Your task to perform on an android device: turn on improve location accuracy Image 0: 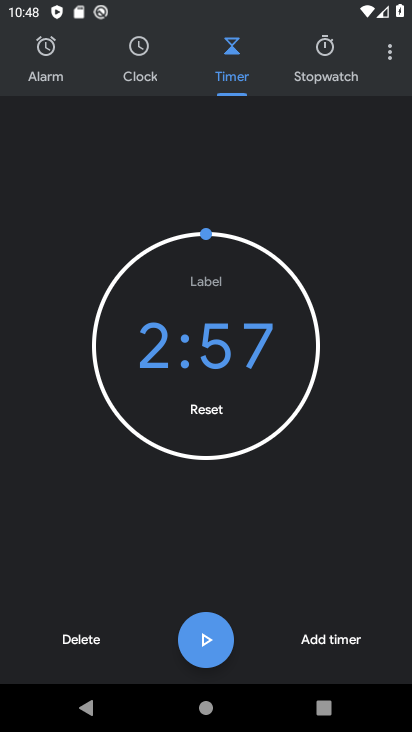
Step 0: press home button
Your task to perform on an android device: turn on improve location accuracy Image 1: 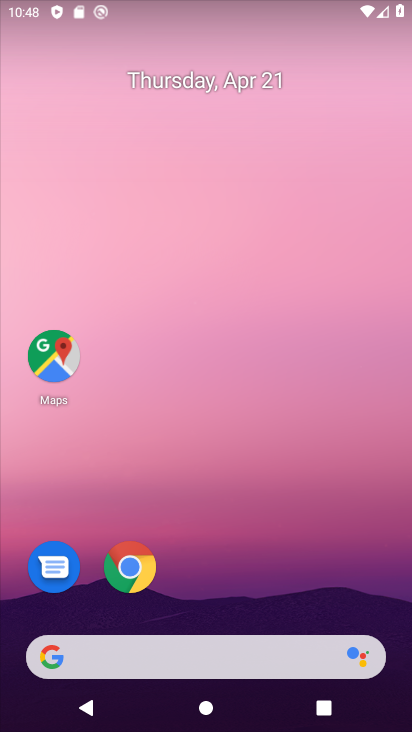
Step 1: click (248, 622)
Your task to perform on an android device: turn on improve location accuracy Image 2: 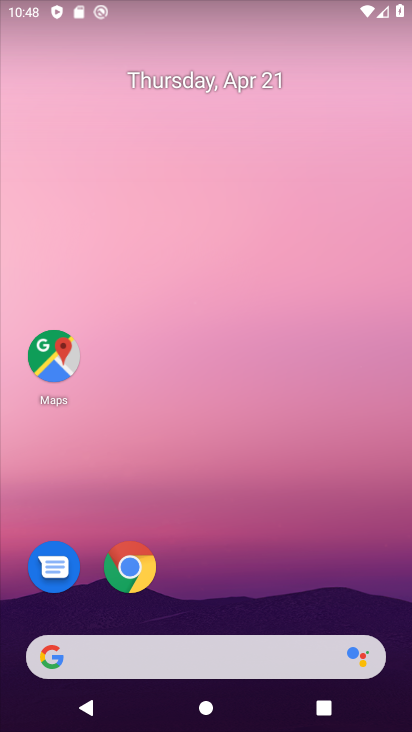
Step 2: drag from (229, 604) to (296, 168)
Your task to perform on an android device: turn on improve location accuracy Image 3: 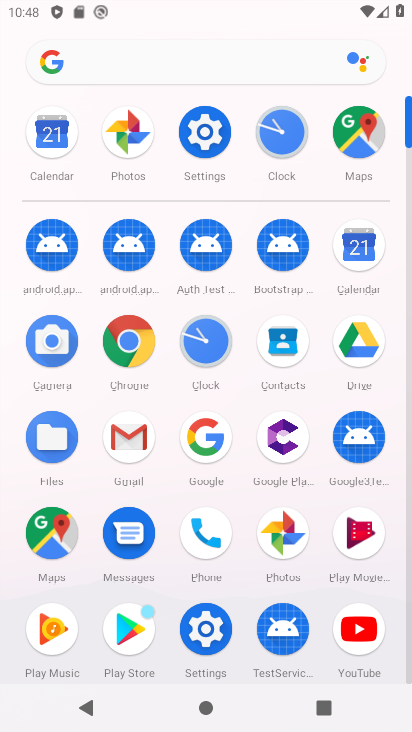
Step 3: click (204, 159)
Your task to perform on an android device: turn on improve location accuracy Image 4: 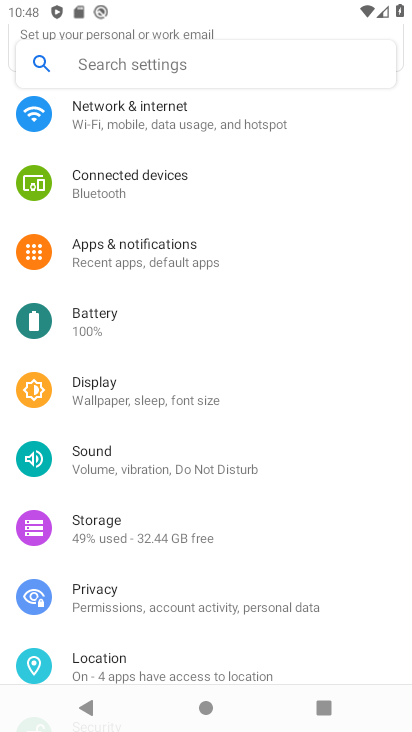
Step 4: drag from (182, 583) to (225, 297)
Your task to perform on an android device: turn on improve location accuracy Image 5: 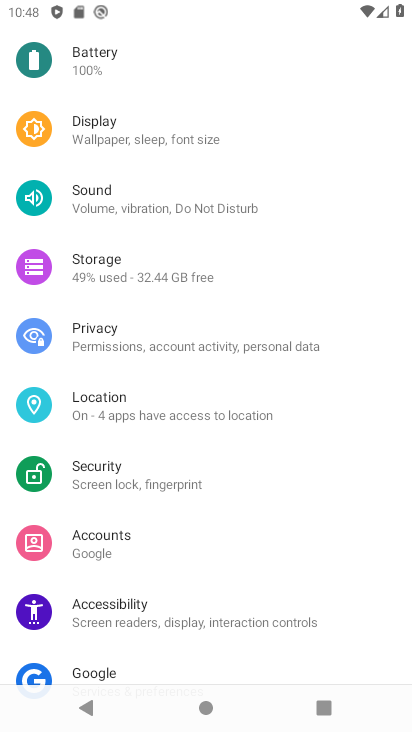
Step 5: click (139, 415)
Your task to perform on an android device: turn on improve location accuracy Image 6: 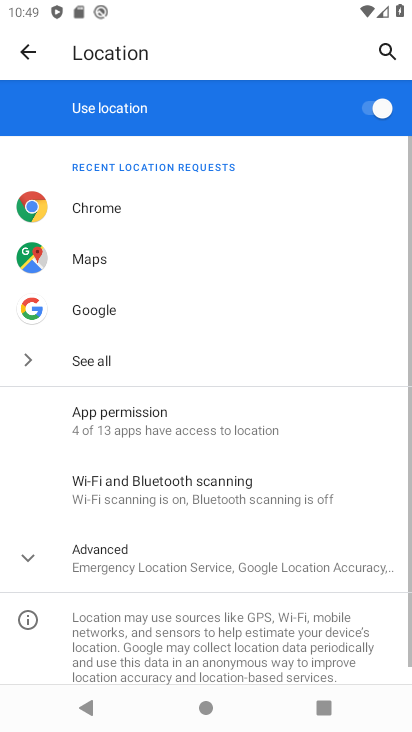
Step 6: click (146, 566)
Your task to perform on an android device: turn on improve location accuracy Image 7: 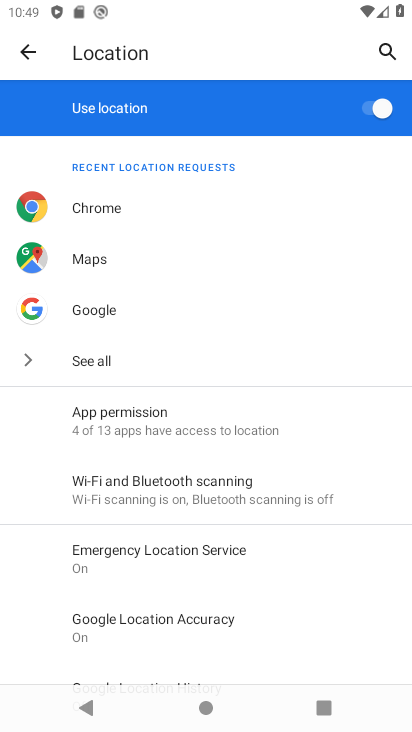
Step 7: click (139, 624)
Your task to perform on an android device: turn on improve location accuracy Image 8: 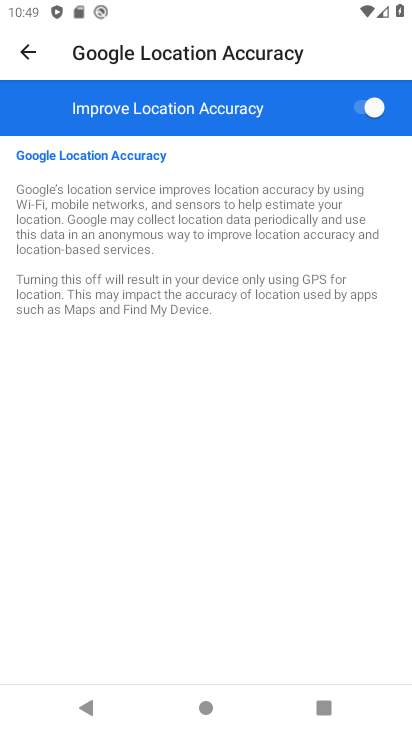
Step 8: task complete